Your task to perform on an android device: Open the stopwatch Image 0: 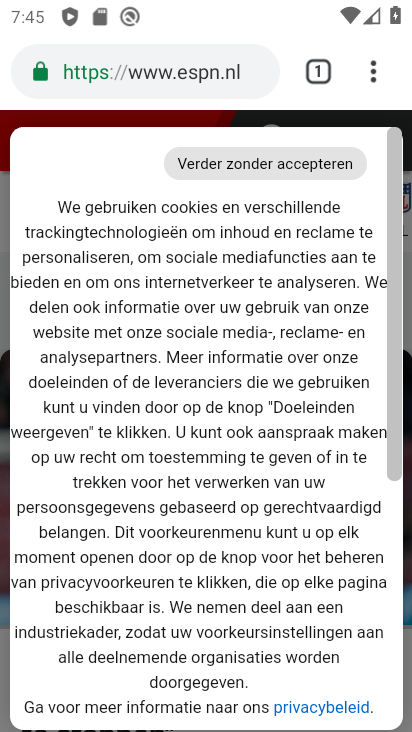
Step 0: press home button
Your task to perform on an android device: Open the stopwatch Image 1: 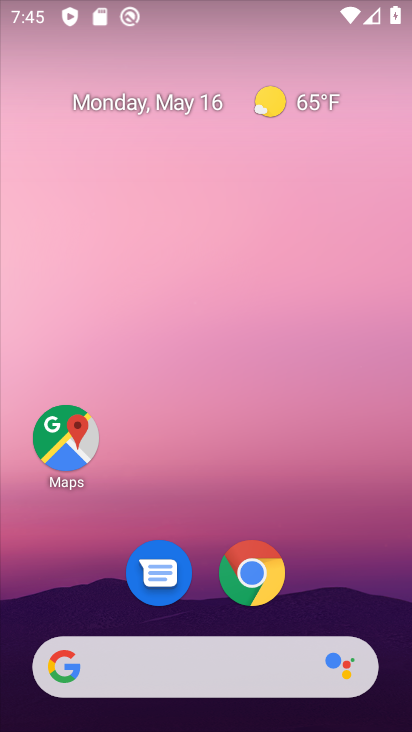
Step 1: drag from (306, 594) to (372, 38)
Your task to perform on an android device: Open the stopwatch Image 2: 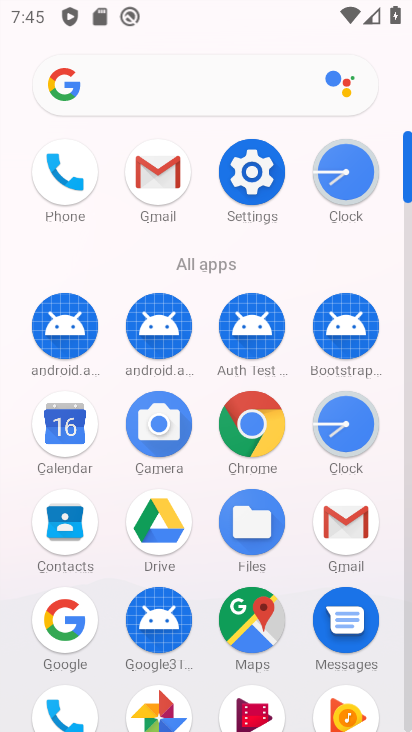
Step 2: click (344, 426)
Your task to perform on an android device: Open the stopwatch Image 3: 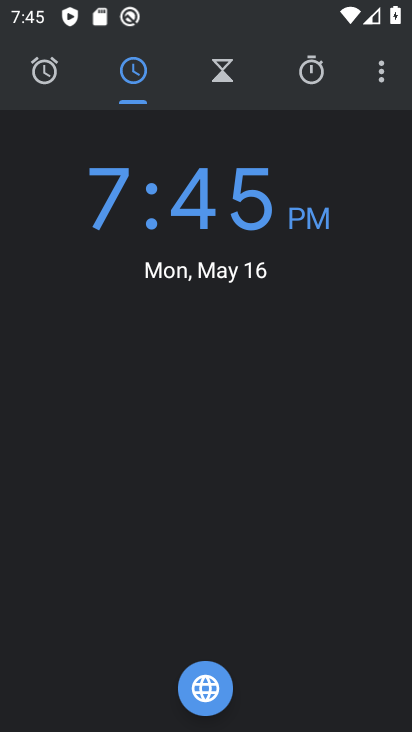
Step 3: click (302, 80)
Your task to perform on an android device: Open the stopwatch Image 4: 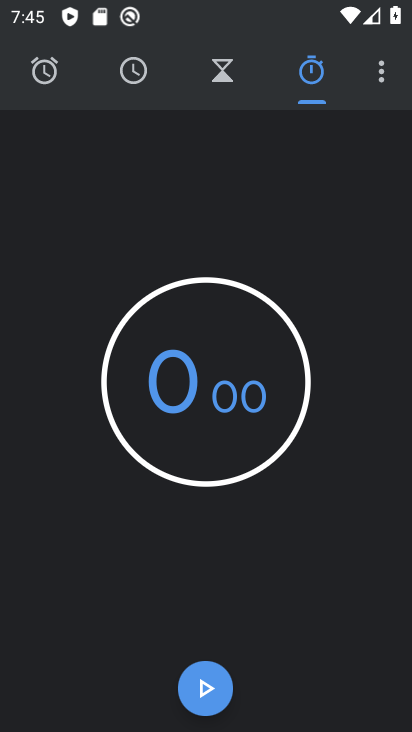
Step 4: task complete